Your task to perform on an android device: move an email to a new category in the gmail app Image 0: 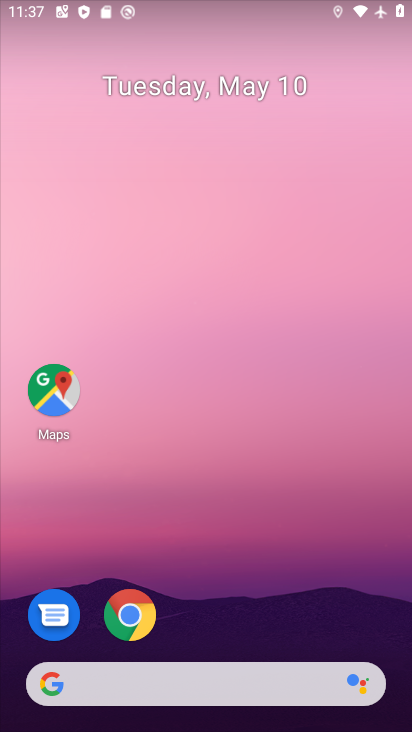
Step 0: drag from (271, 533) to (231, 5)
Your task to perform on an android device: move an email to a new category in the gmail app Image 1: 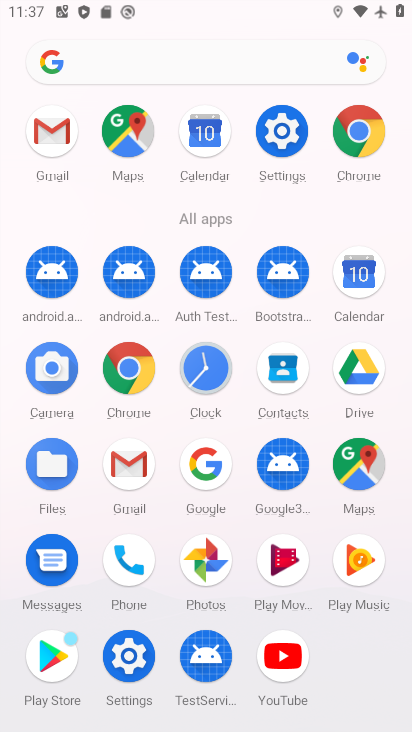
Step 1: drag from (12, 588) to (0, 230)
Your task to perform on an android device: move an email to a new category in the gmail app Image 2: 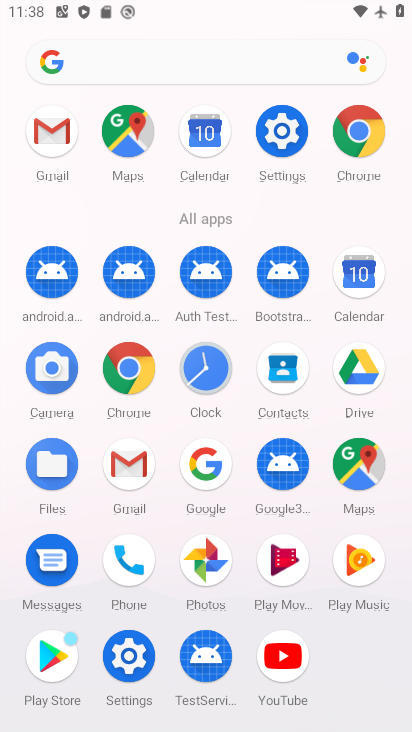
Step 2: click (126, 459)
Your task to perform on an android device: move an email to a new category in the gmail app Image 3: 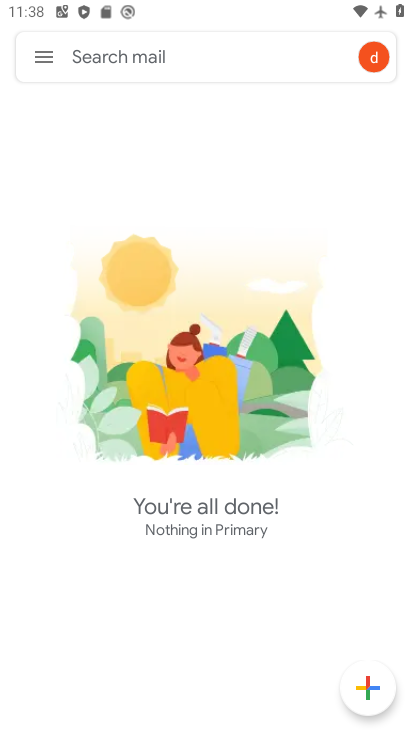
Step 3: click (43, 54)
Your task to perform on an android device: move an email to a new category in the gmail app Image 4: 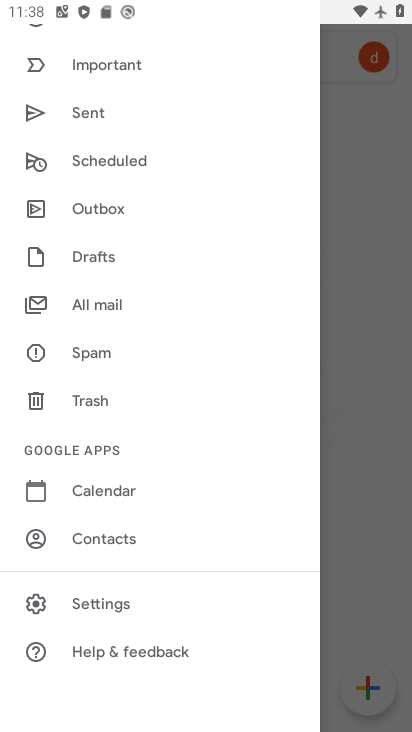
Step 4: drag from (196, 515) to (199, 127)
Your task to perform on an android device: move an email to a new category in the gmail app Image 5: 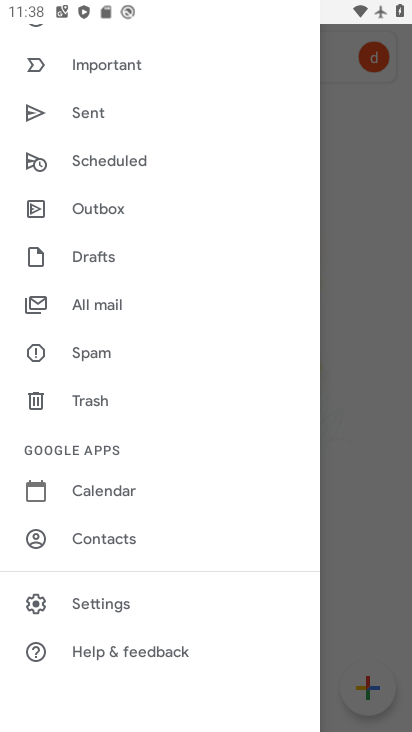
Step 5: click (121, 299)
Your task to perform on an android device: move an email to a new category in the gmail app Image 6: 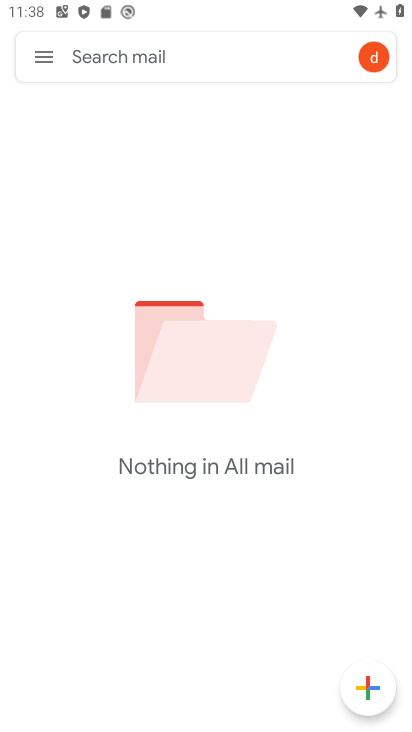
Step 6: click (34, 39)
Your task to perform on an android device: move an email to a new category in the gmail app Image 7: 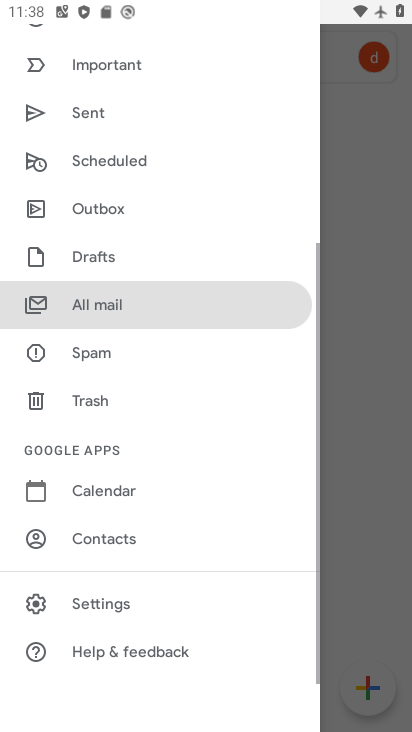
Step 7: drag from (105, 131) to (152, 588)
Your task to perform on an android device: move an email to a new category in the gmail app Image 8: 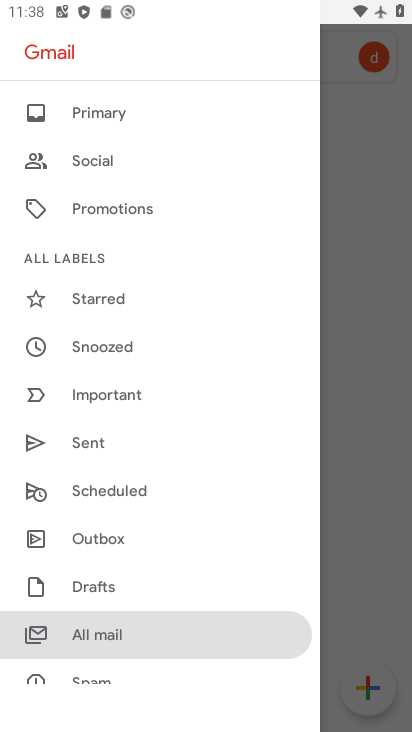
Step 8: click (136, 112)
Your task to perform on an android device: move an email to a new category in the gmail app Image 9: 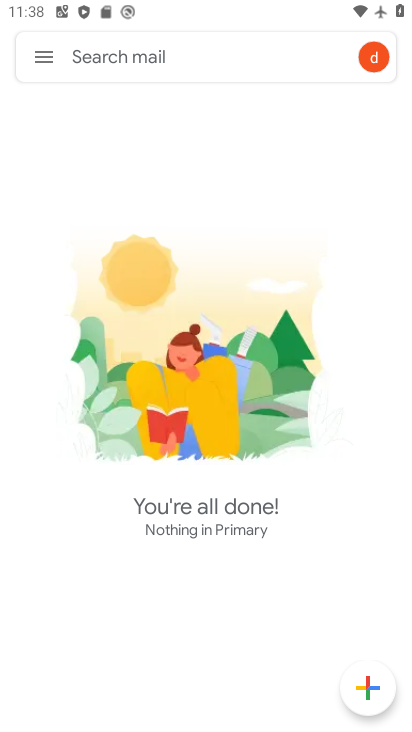
Step 9: task complete